Your task to perform on an android device: Open internet settings Image 0: 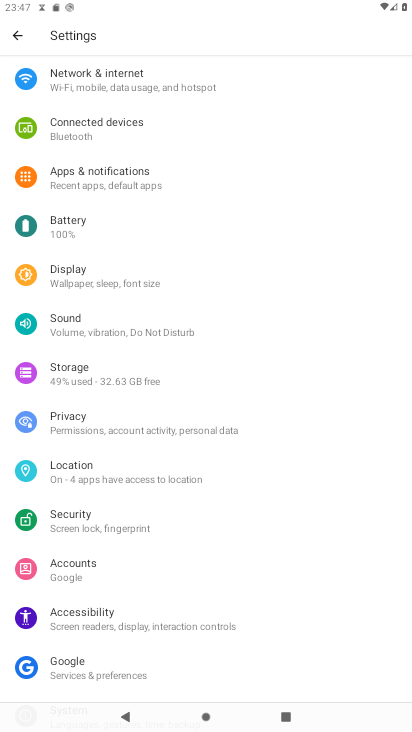
Step 0: click (160, 76)
Your task to perform on an android device: Open internet settings Image 1: 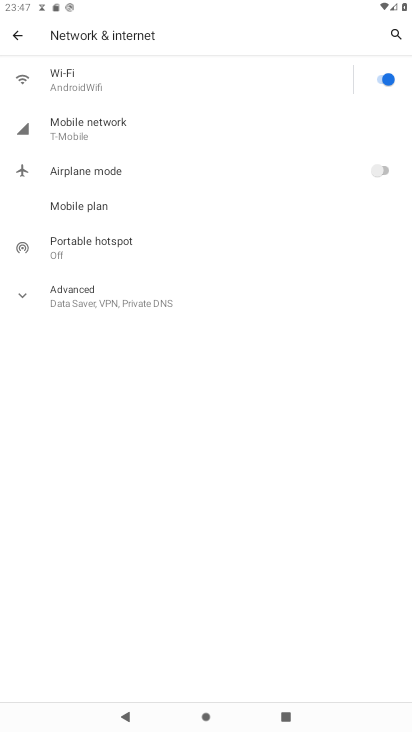
Step 1: task complete